Your task to perform on an android device: check battery use Image 0: 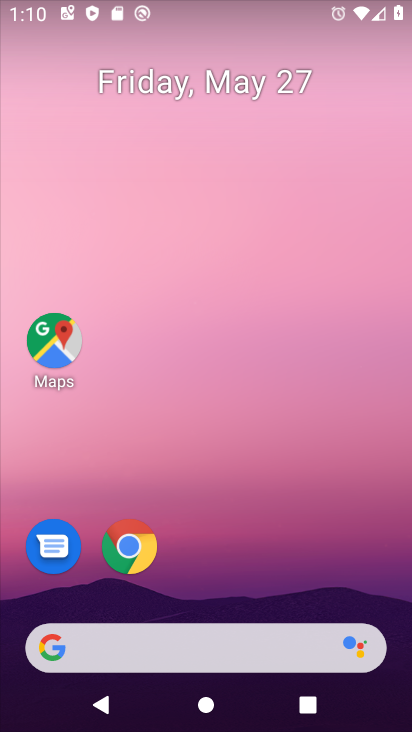
Step 0: drag from (279, 660) to (174, 209)
Your task to perform on an android device: check battery use Image 1: 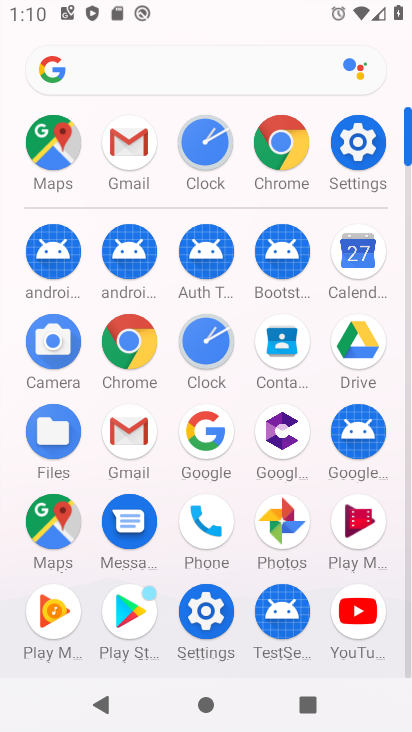
Step 1: click (202, 602)
Your task to perform on an android device: check battery use Image 2: 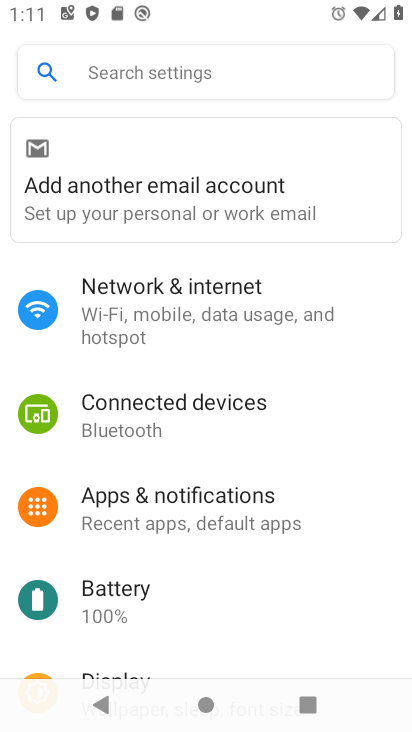
Step 2: click (127, 592)
Your task to perform on an android device: check battery use Image 3: 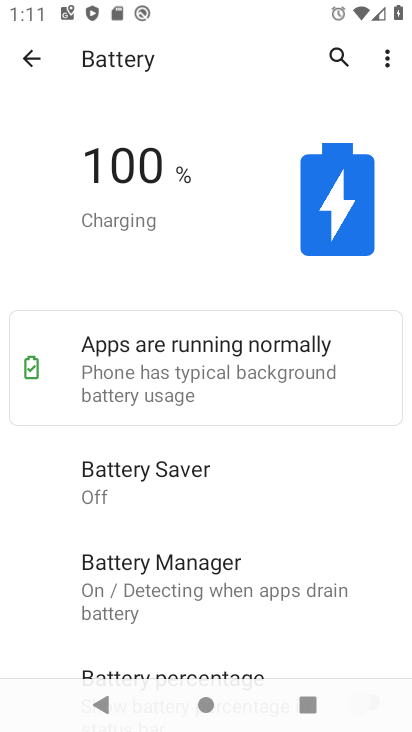
Step 3: task complete